Your task to perform on an android device: Is it going to rain this weekend? Image 0: 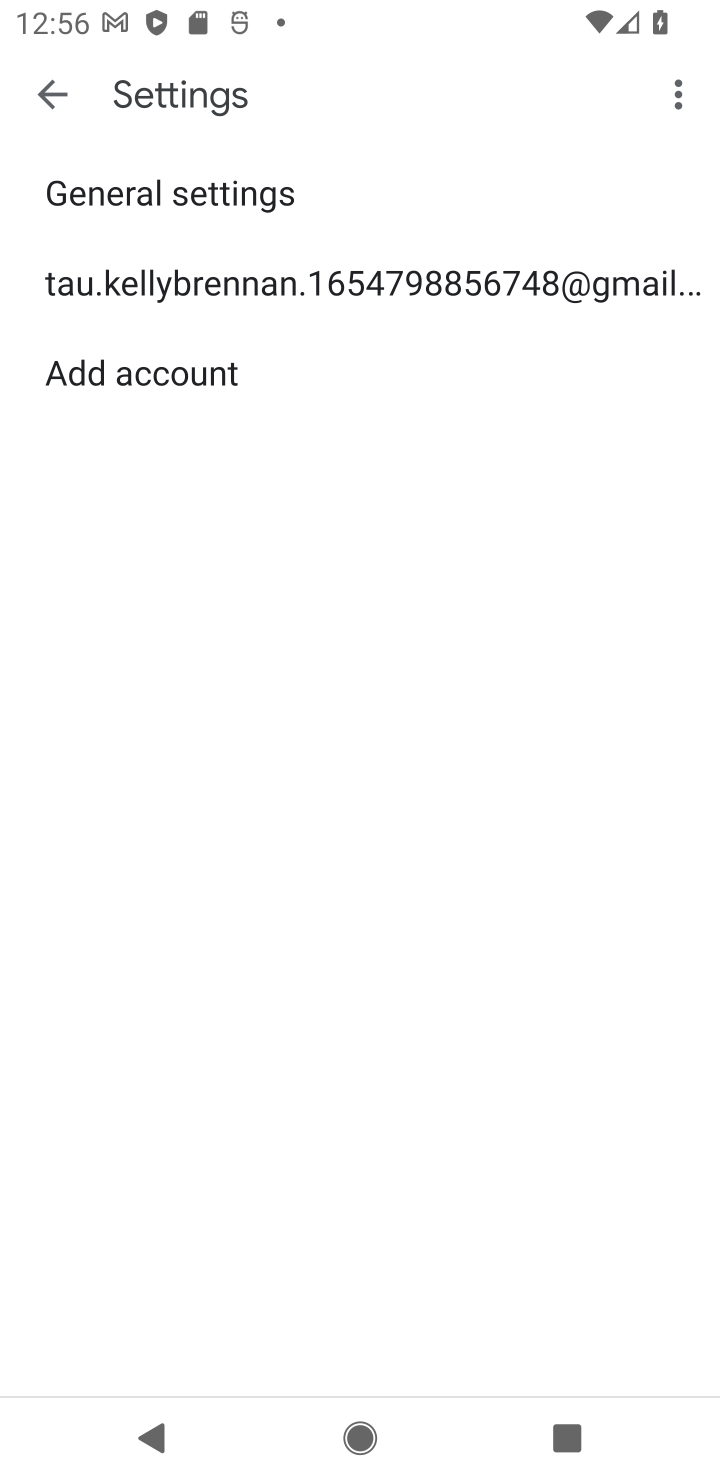
Step 0: press home button
Your task to perform on an android device: Is it going to rain this weekend? Image 1: 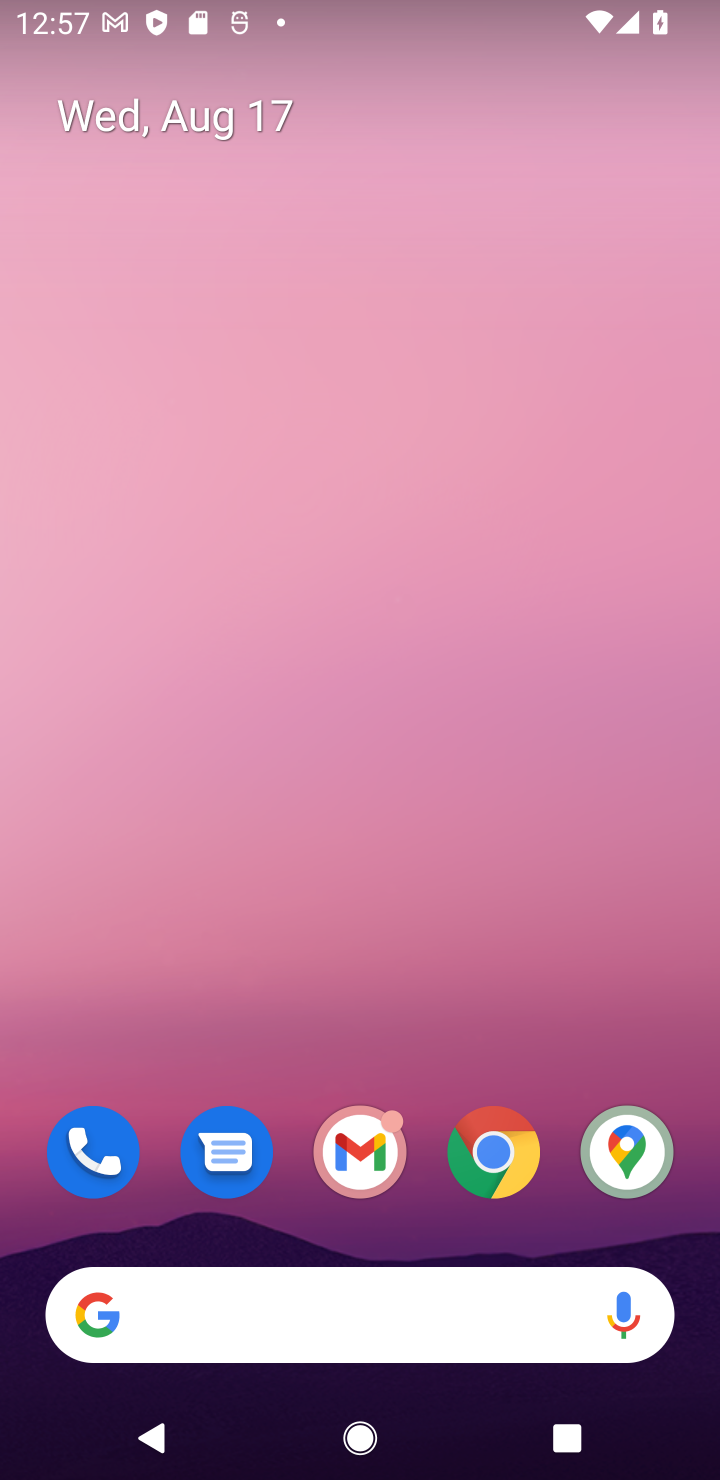
Step 1: drag from (582, 1224) to (275, 32)
Your task to perform on an android device: Is it going to rain this weekend? Image 2: 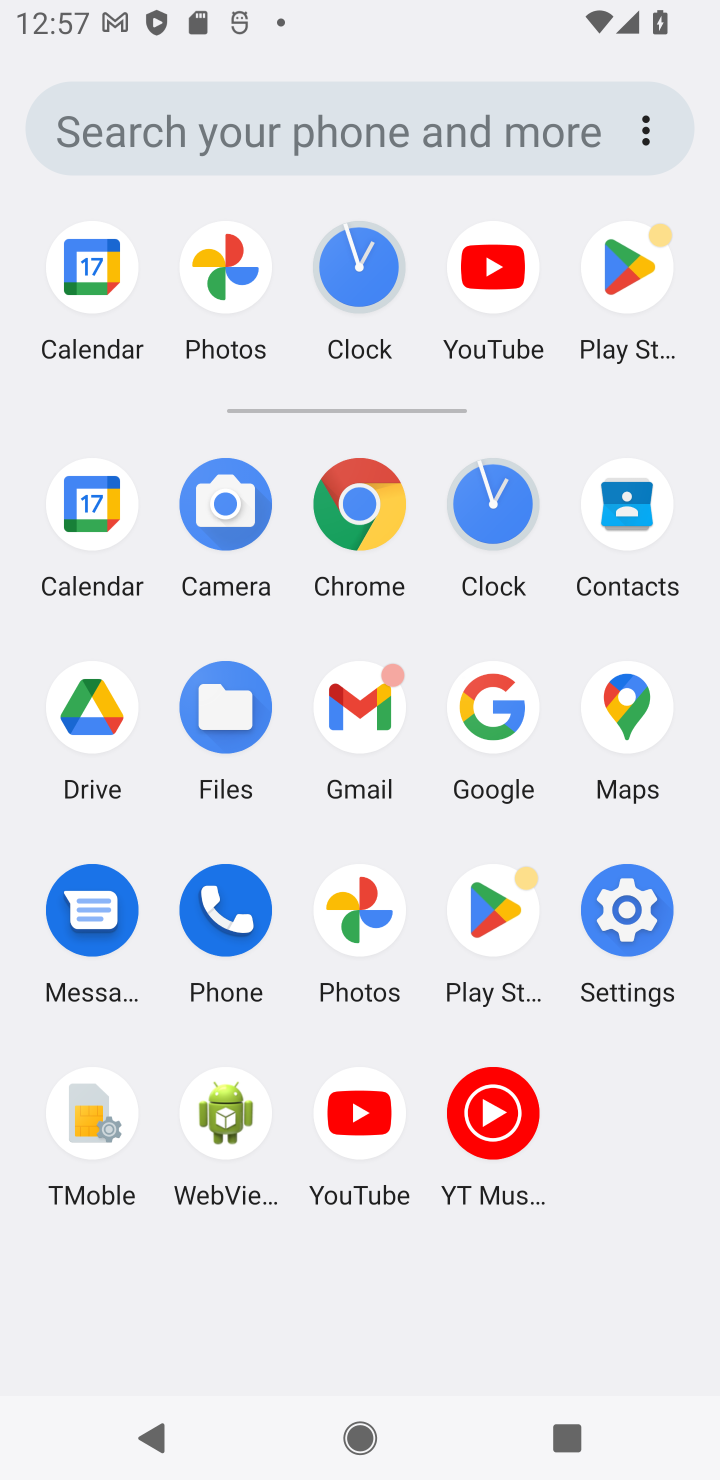
Step 2: click (490, 727)
Your task to perform on an android device: Is it going to rain this weekend? Image 3: 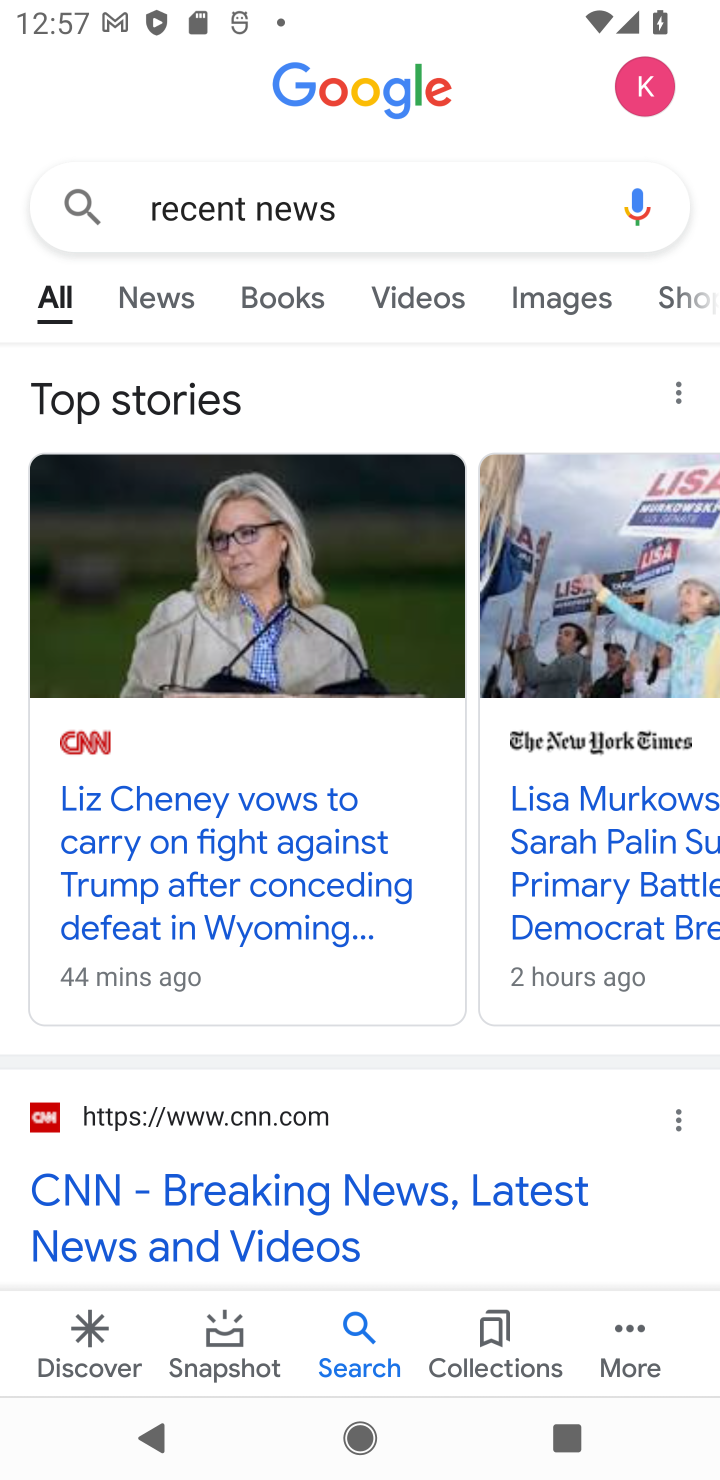
Step 3: press back button
Your task to perform on an android device: Is it going to rain this weekend? Image 4: 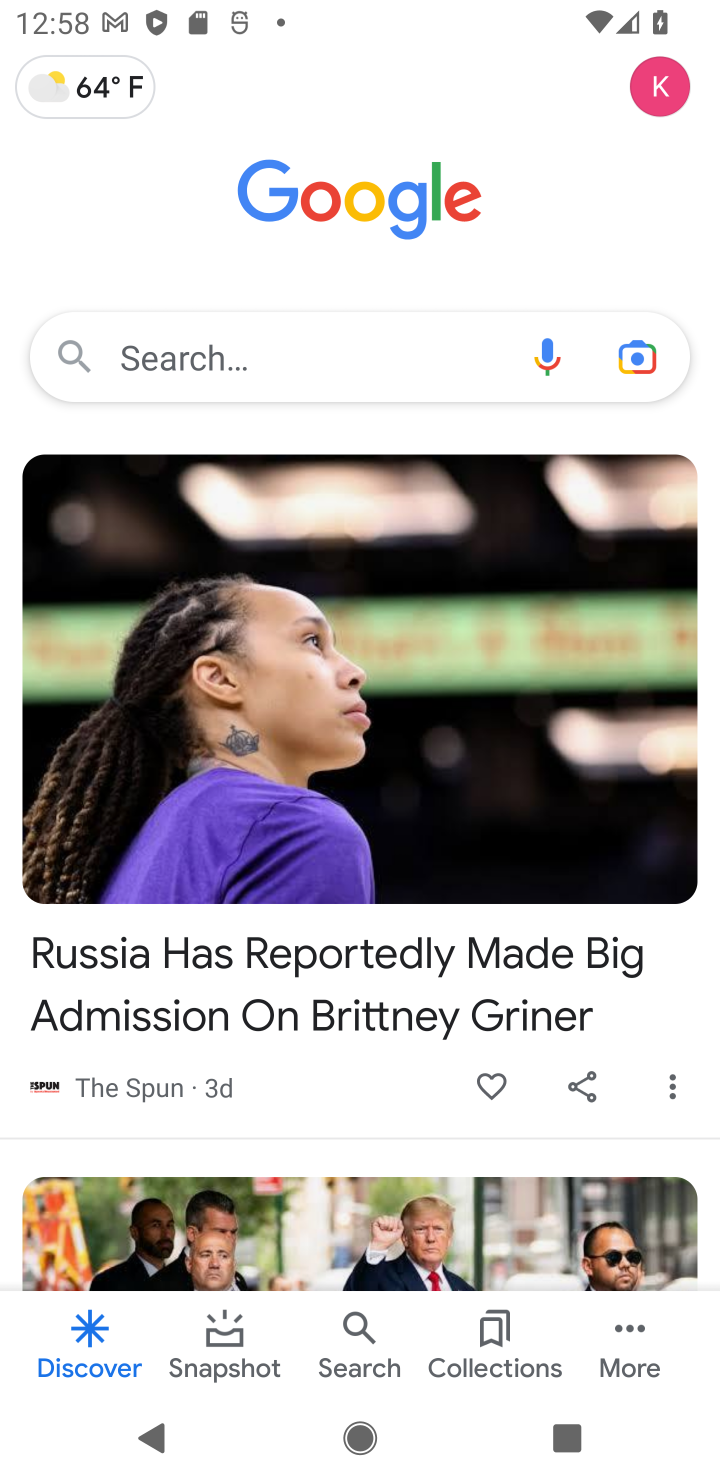
Step 4: click (238, 342)
Your task to perform on an android device: Is it going to rain this weekend? Image 5: 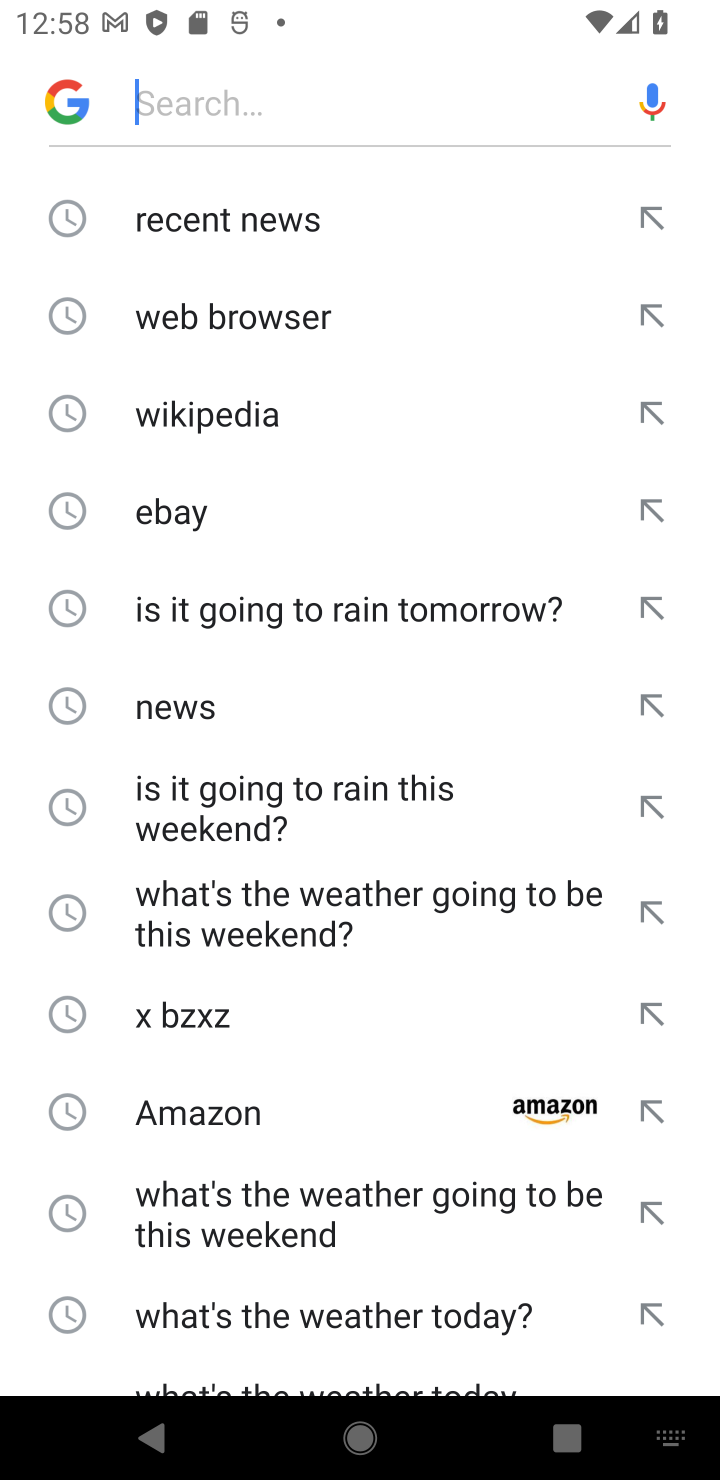
Step 5: type "Is it going to rain this weekend?"
Your task to perform on an android device: Is it going to rain this weekend? Image 6: 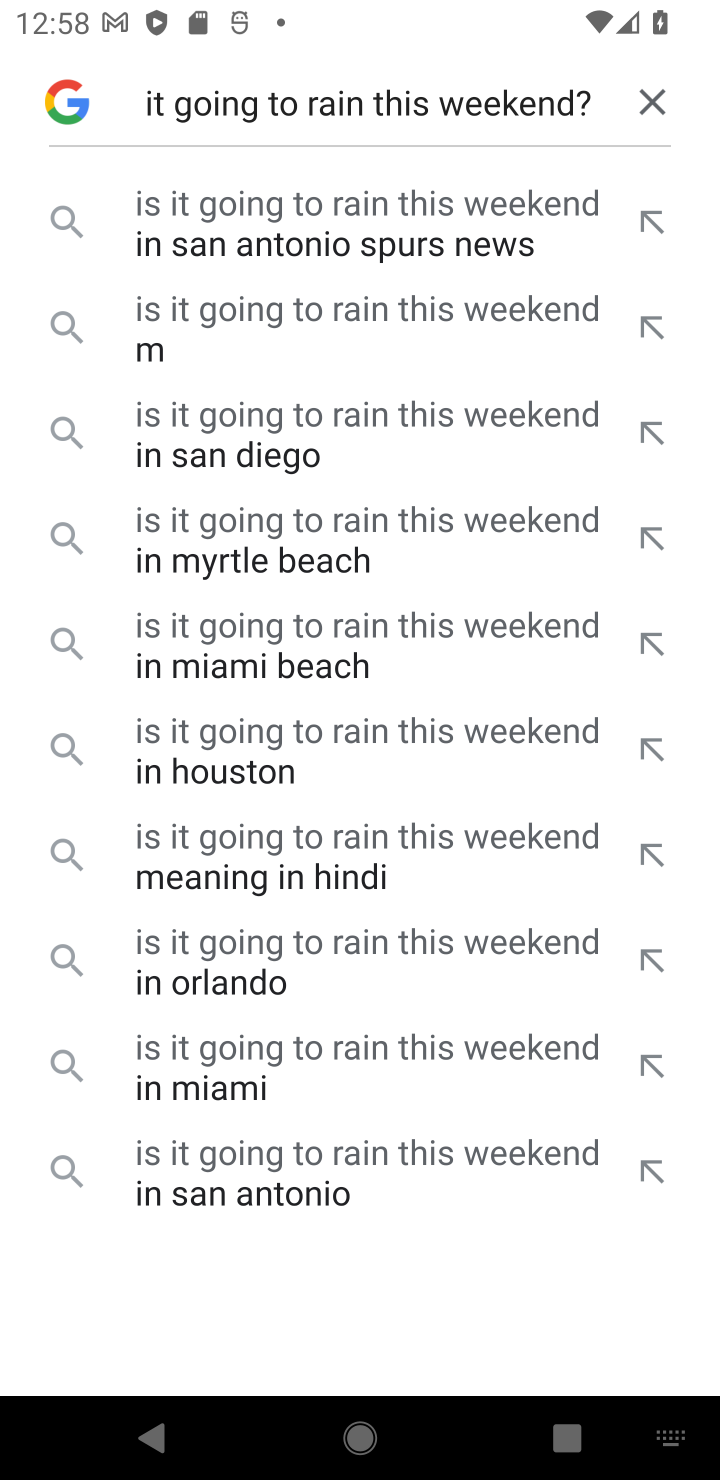
Step 6: task complete